Your task to perform on an android device: change the clock style Image 0: 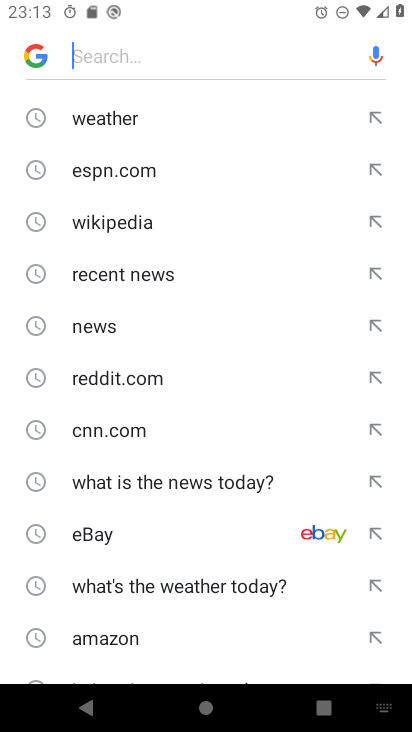
Step 0: press home button
Your task to perform on an android device: change the clock style Image 1: 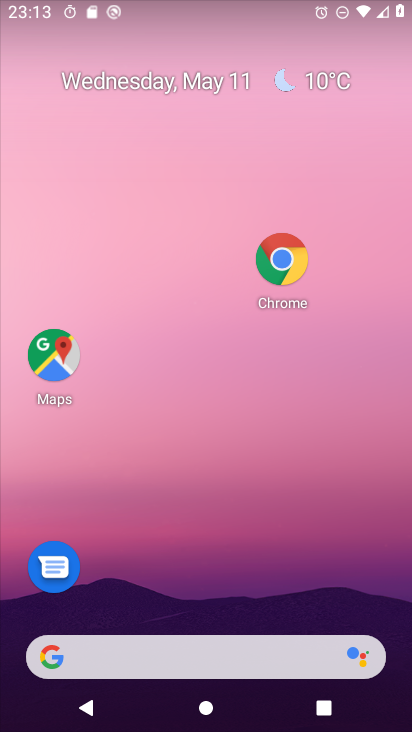
Step 1: drag from (204, 657) to (270, 145)
Your task to perform on an android device: change the clock style Image 2: 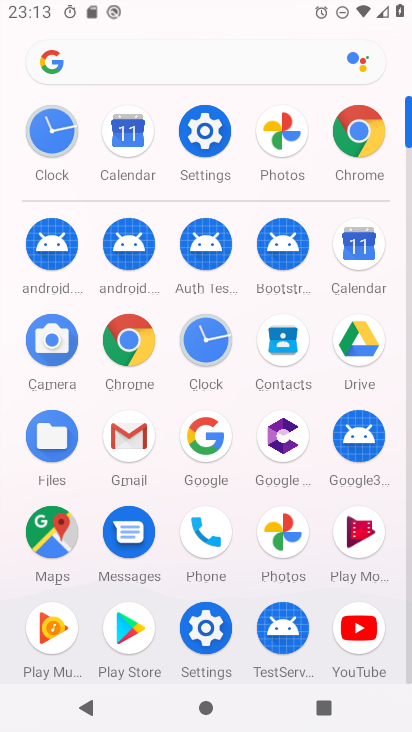
Step 2: click (51, 145)
Your task to perform on an android device: change the clock style Image 3: 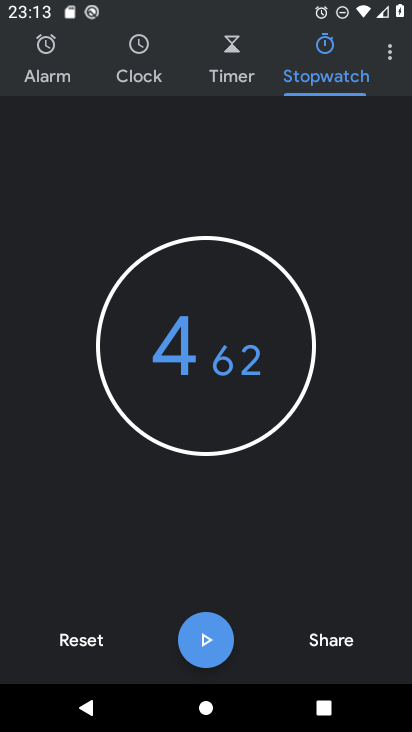
Step 3: click (394, 49)
Your task to perform on an android device: change the clock style Image 4: 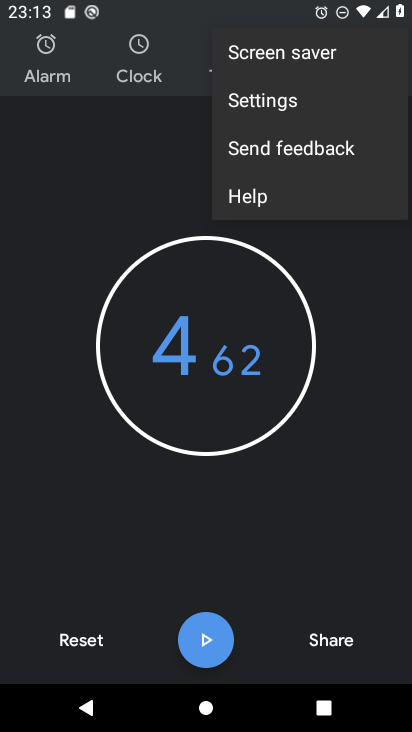
Step 4: click (287, 104)
Your task to perform on an android device: change the clock style Image 5: 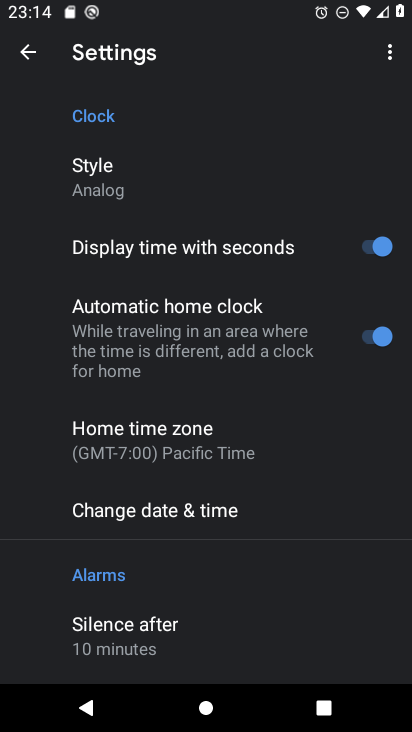
Step 5: click (99, 188)
Your task to perform on an android device: change the clock style Image 6: 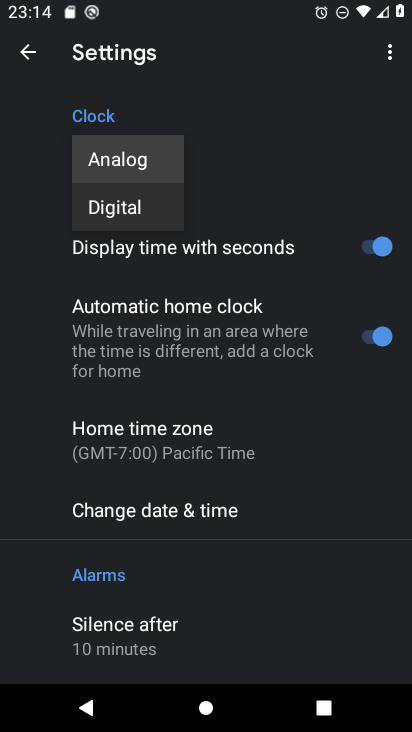
Step 6: click (153, 212)
Your task to perform on an android device: change the clock style Image 7: 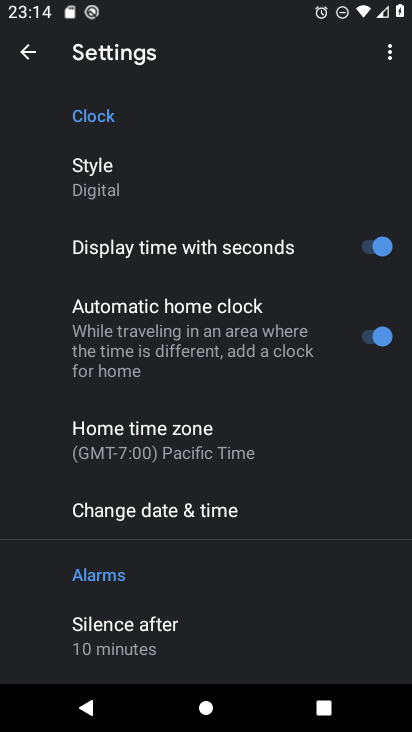
Step 7: task complete